Your task to perform on an android device: Search for seafood restaurants on Google Maps Image 0: 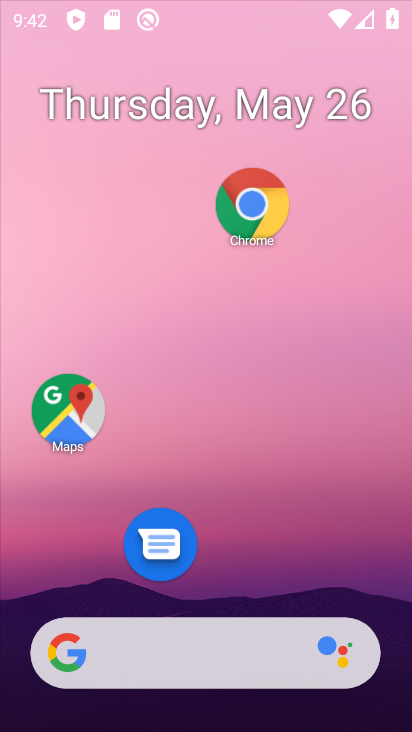
Step 0: click (201, 68)
Your task to perform on an android device: Search for seafood restaurants on Google Maps Image 1: 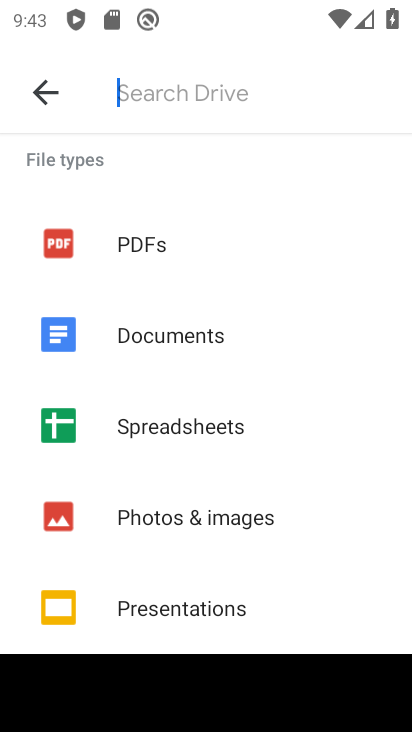
Step 1: press home button
Your task to perform on an android device: Search for seafood restaurants on Google Maps Image 2: 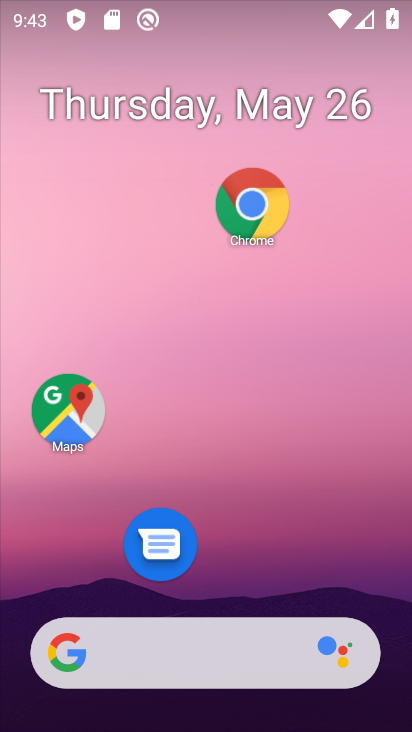
Step 2: click (68, 403)
Your task to perform on an android device: Search for seafood restaurants on Google Maps Image 3: 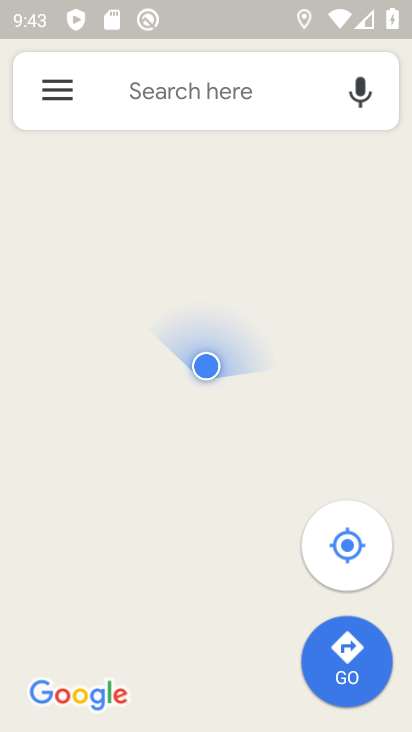
Step 3: click (156, 82)
Your task to perform on an android device: Search for seafood restaurants on Google Maps Image 4: 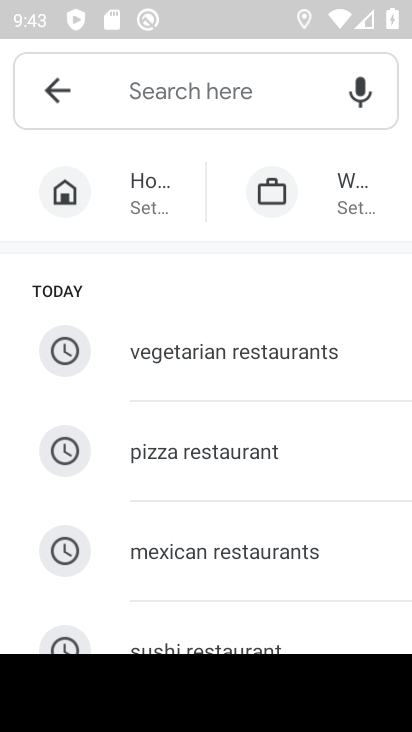
Step 4: type "seafood"
Your task to perform on an android device: Search for seafood restaurants on Google Maps Image 5: 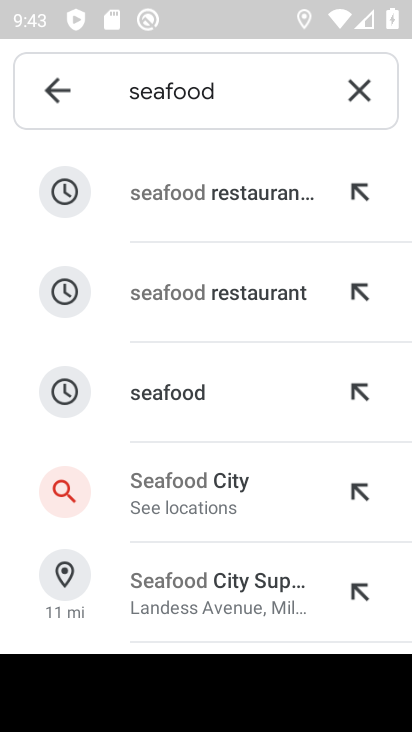
Step 5: click (261, 215)
Your task to perform on an android device: Search for seafood restaurants on Google Maps Image 6: 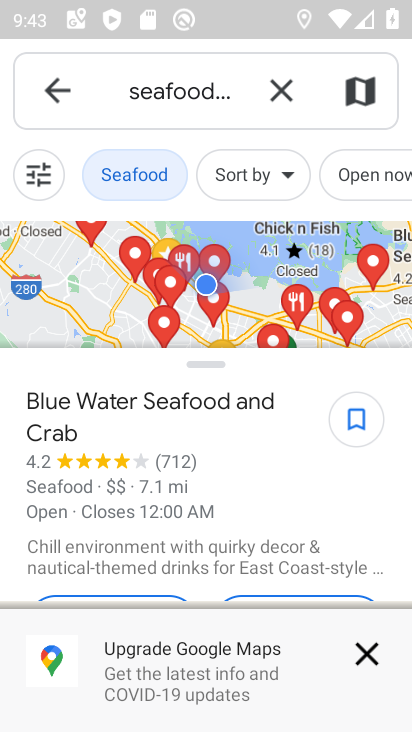
Step 6: task complete